Your task to perform on an android device: Go to calendar. Show me events next week Image 0: 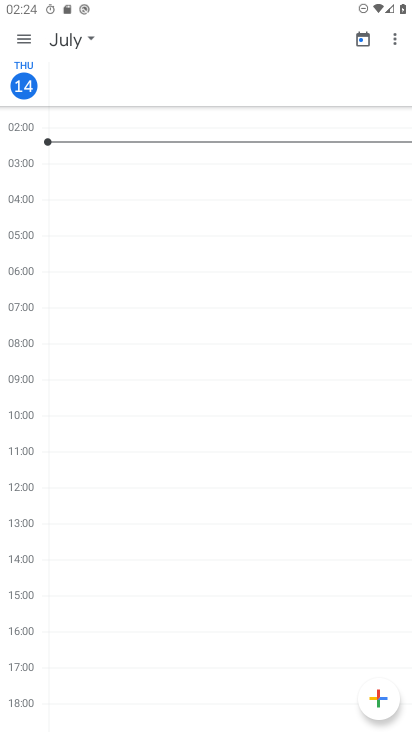
Step 0: click (62, 45)
Your task to perform on an android device: Go to calendar. Show me events next week Image 1: 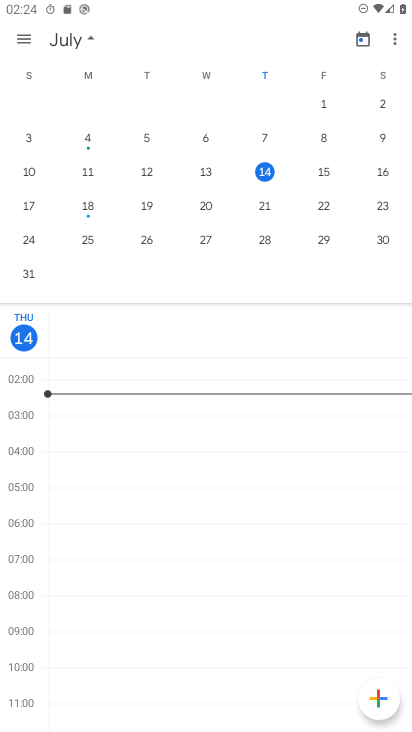
Step 1: click (90, 212)
Your task to perform on an android device: Go to calendar. Show me events next week Image 2: 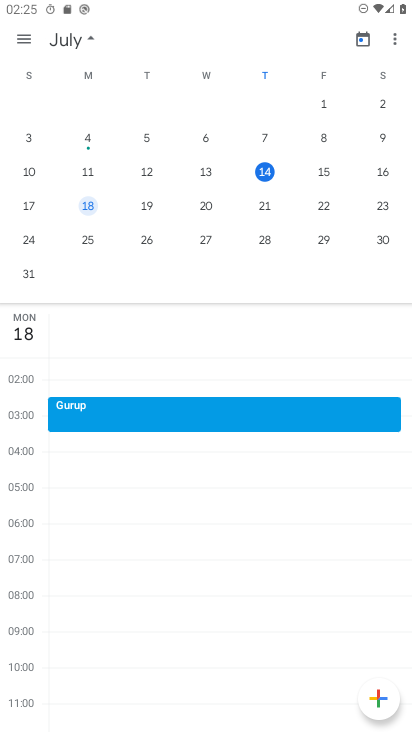
Step 2: click (24, 39)
Your task to perform on an android device: Go to calendar. Show me events next week Image 3: 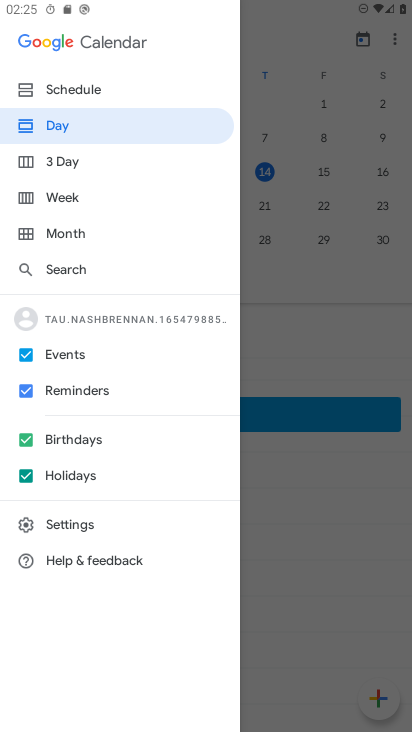
Step 3: click (76, 193)
Your task to perform on an android device: Go to calendar. Show me events next week Image 4: 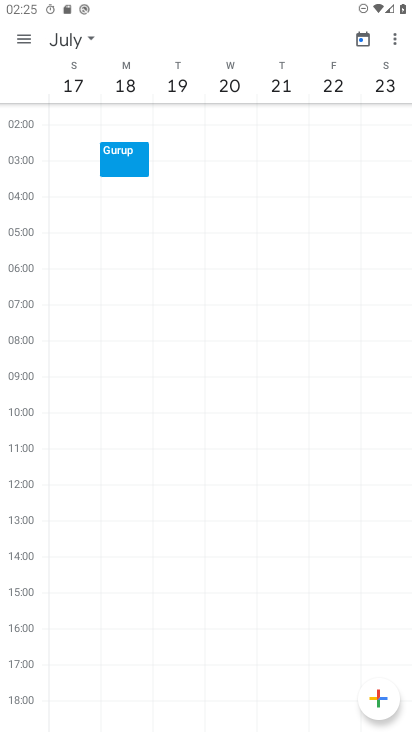
Step 4: task complete